Your task to perform on an android device: Go to notification settings Image 0: 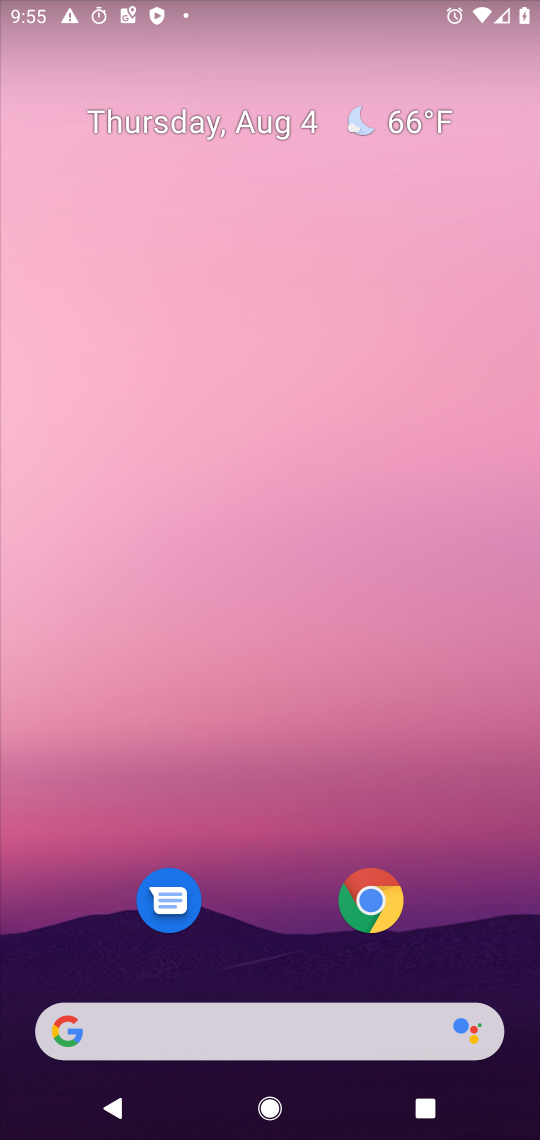
Step 0: drag from (292, 818) to (198, 241)
Your task to perform on an android device: Go to notification settings Image 1: 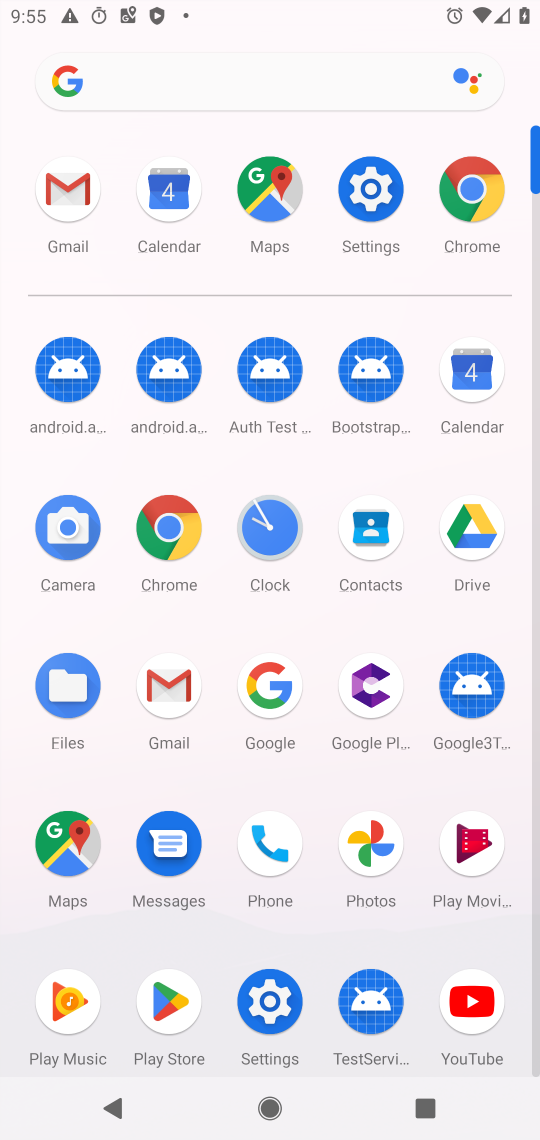
Step 1: click (376, 199)
Your task to perform on an android device: Go to notification settings Image 2: 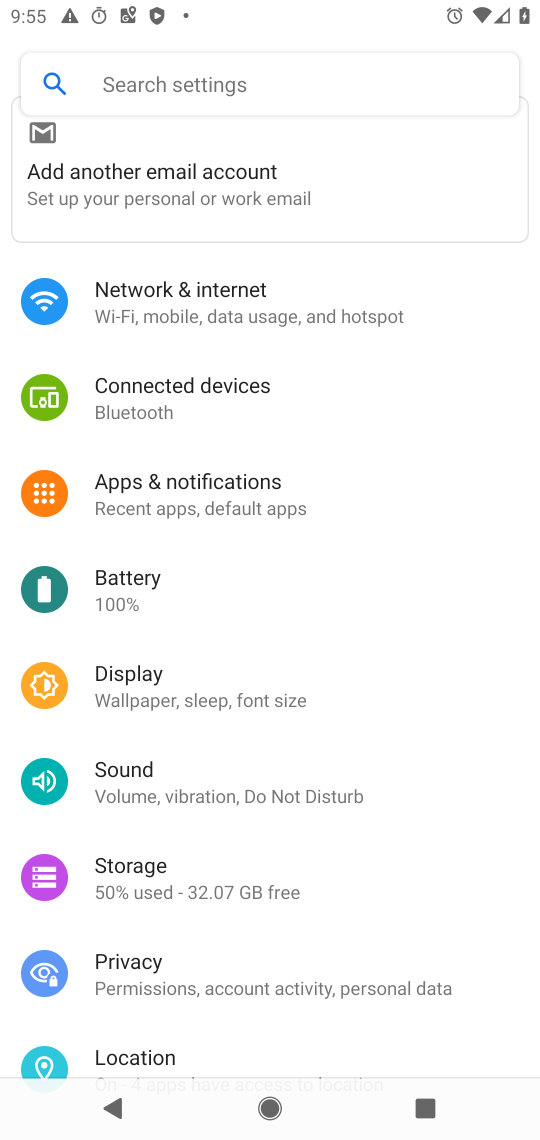
Step 2: click (233, 494)
Your task to perform on an android device: Go to notification settings Image 3: 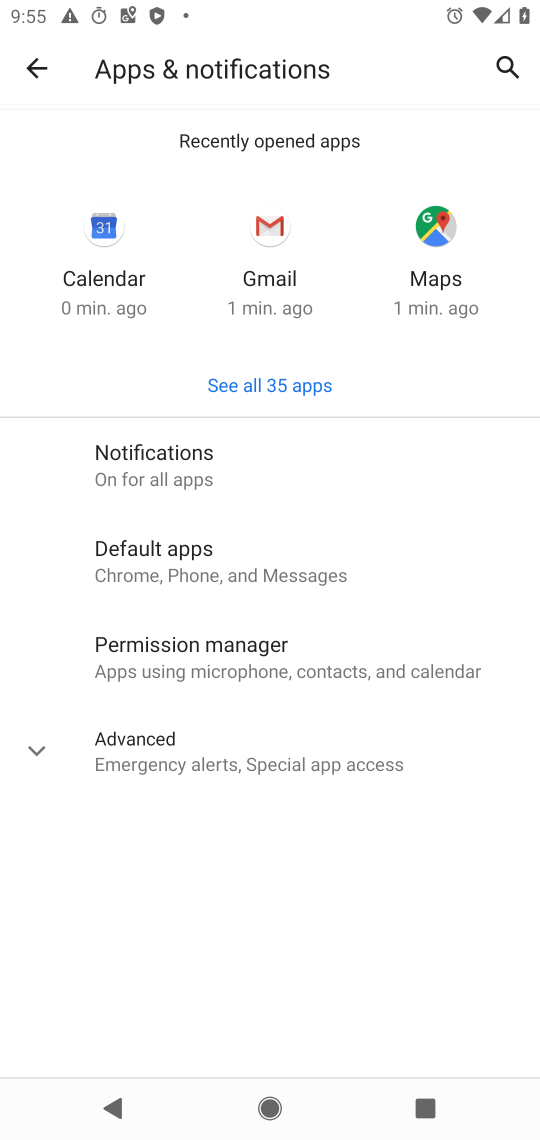
Step 3: click (196, 463)
Your task to perform on an android device: Go to notification settings Image 4: 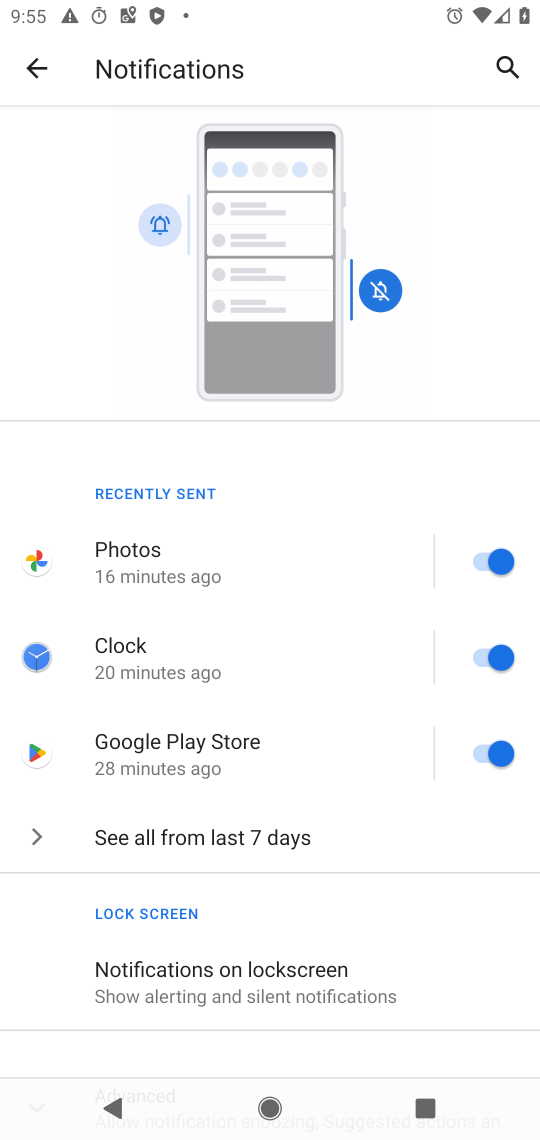
Step 4: task complete